Your task to perform on an android device: create a new album in the google photos Image 0: 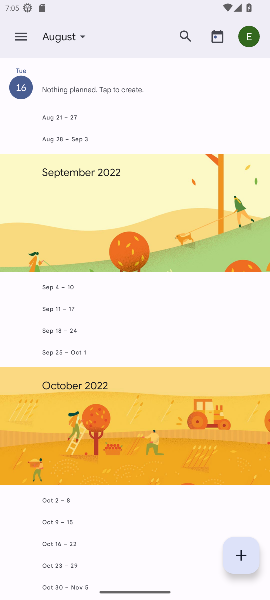
Step 0: press home button
Your task to perform on an android device: create a new album in the google photos Image 1: 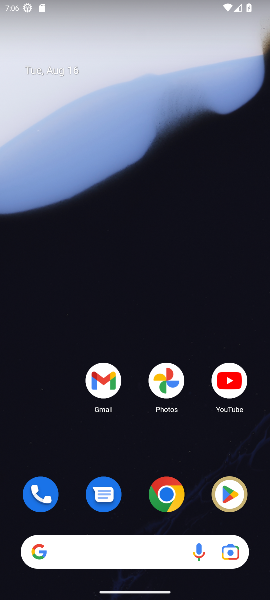
Step 1: click (168, 377)
Your task to perform on an android device: create a new album in the google photos Image 2: 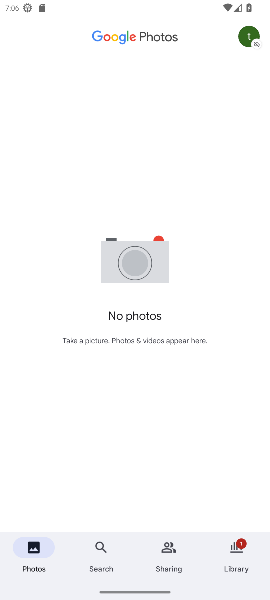
Step 2: task complete